Your task to perform on an android device: check storage Image 0: 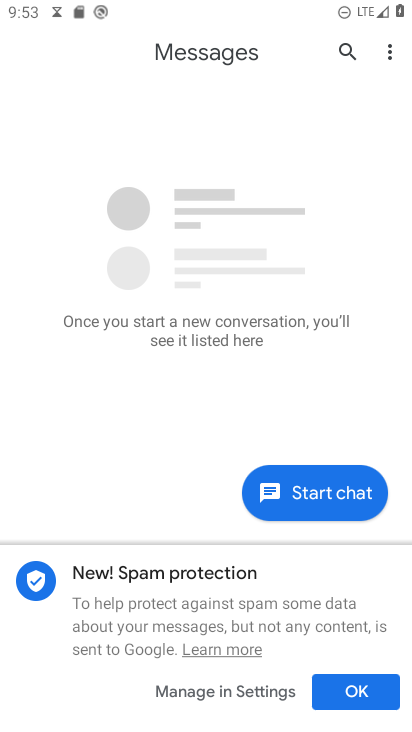
Step 0: press home button
Your task to perform on an android device: check storage Image 1: 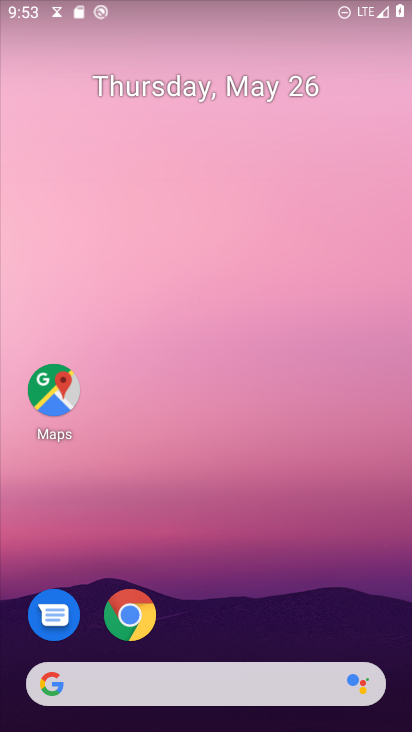
Step 1: drag from (218, 605) to (224, 205)
Your task to perform on an android device: check storage Image 2: 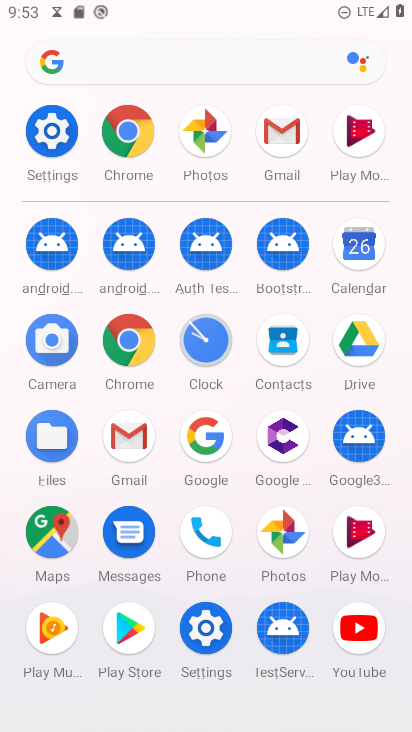
Step 2: click (39, 123)
Your task to perform on an android device: check storage Image 3: 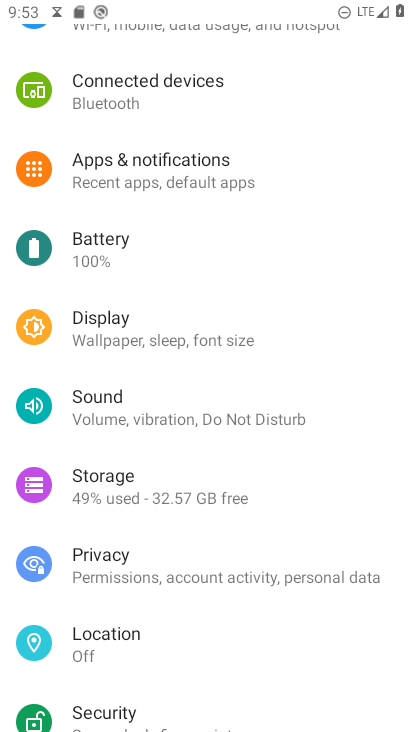
Step 3: click (155, 486)
Your task to perform on an android device: check storage Image 4: 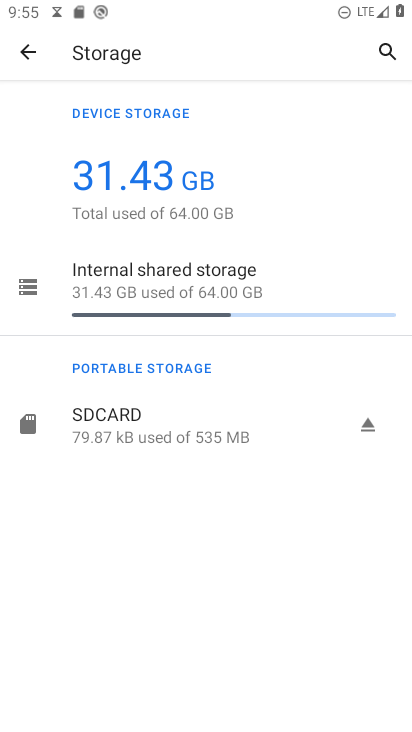
Step 4: task complete